Your task to perform on an android device: set default search engine in the chrome app Image 0: 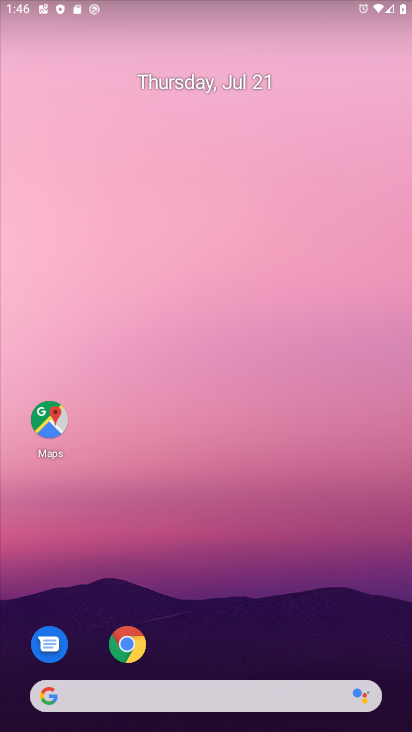
Step 0: drag from (177, 693) to (169, 330)
Your task to perform on an android device: set default search engine in the chrome app Image 1: 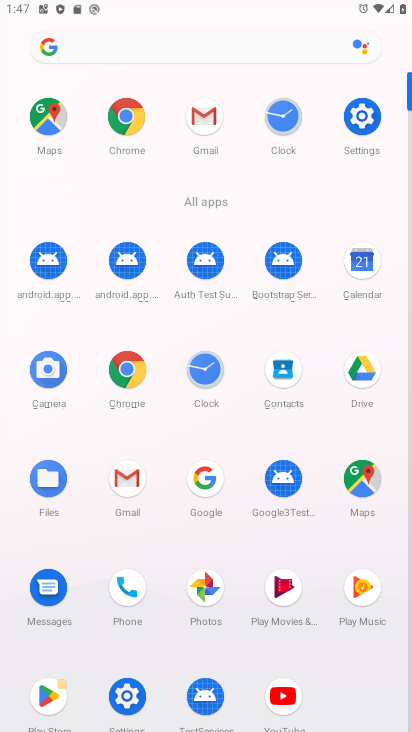
Step 1: click (132, 373)
Your task to perform on an android device: set default search engine in the chrome app Image 2: 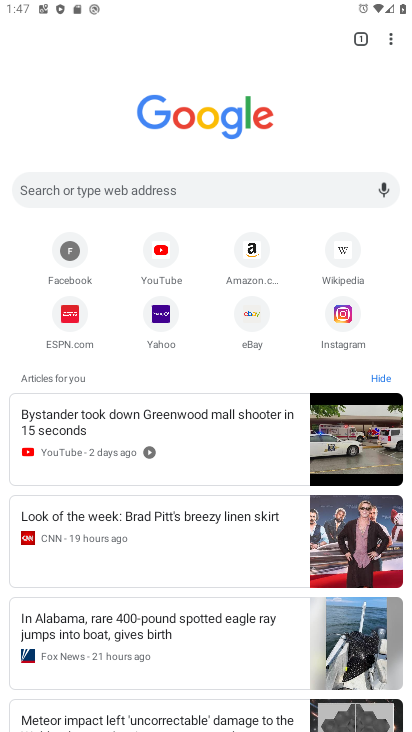
Step 2: click (392, 39)
Your task to perform on an android device: set default search engine in the chrome app Image 3: 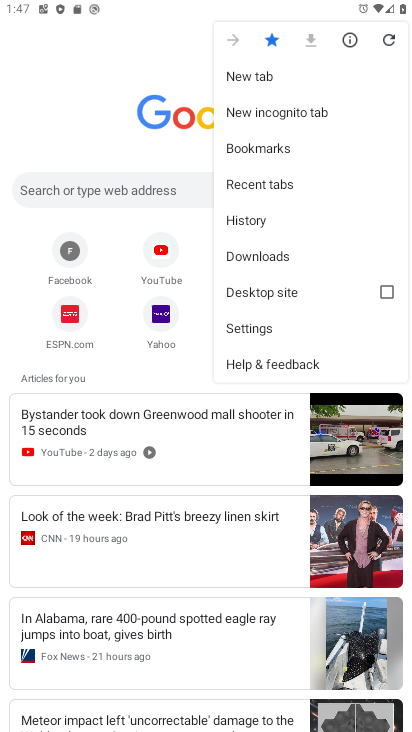
Step 3: click (265, 327)
Your task to perform on an android device: set default search engine in the chrome app Image 4: 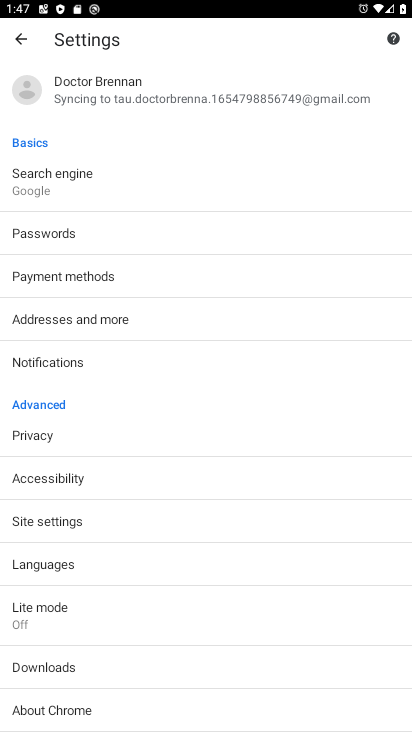
Step 4: click (61, 178)
Your task to perform on an android device: set default search engine in the chrome app Image 5: 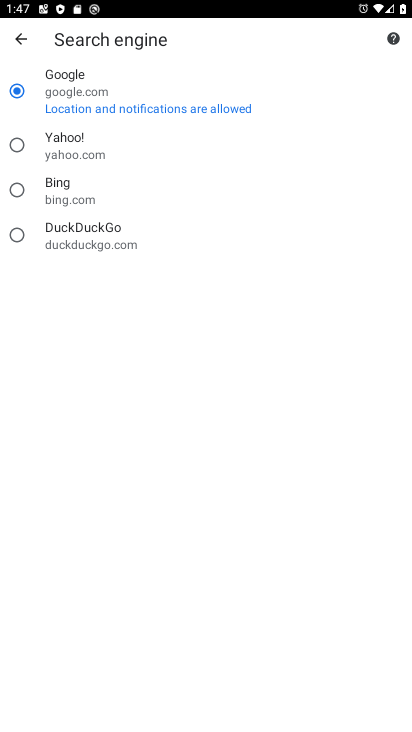
Step 5: task complete